Your task to perform on an android device: Go to Maps Image 0: 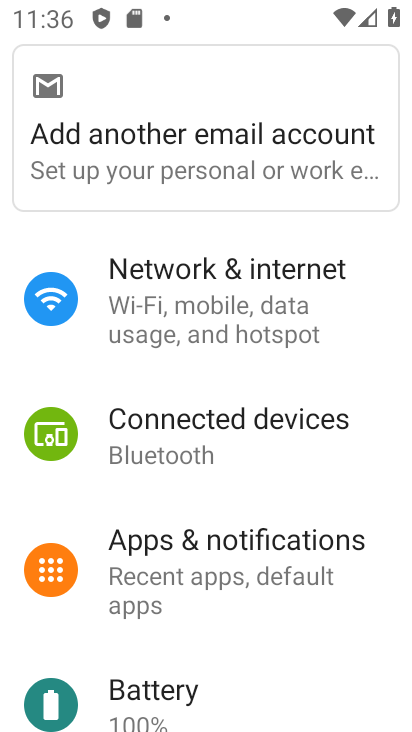
Step 0: press back button
Your task to perform on an android device: Go to Maps Image 1: 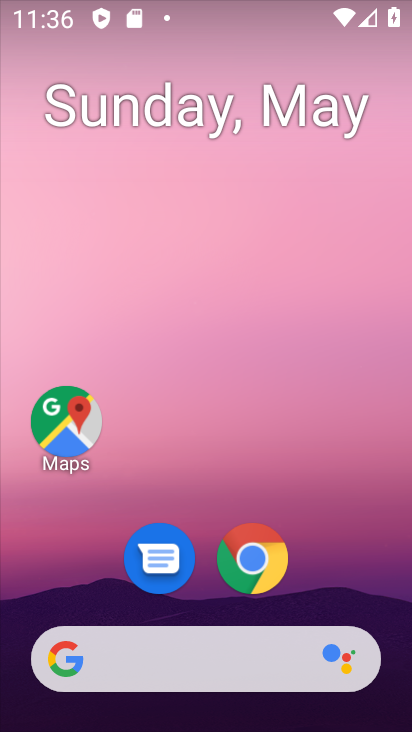
Step 1: drag from (357, 579) to (347, 98)
Your task to perform on an android device: Go to Maps Image 2: 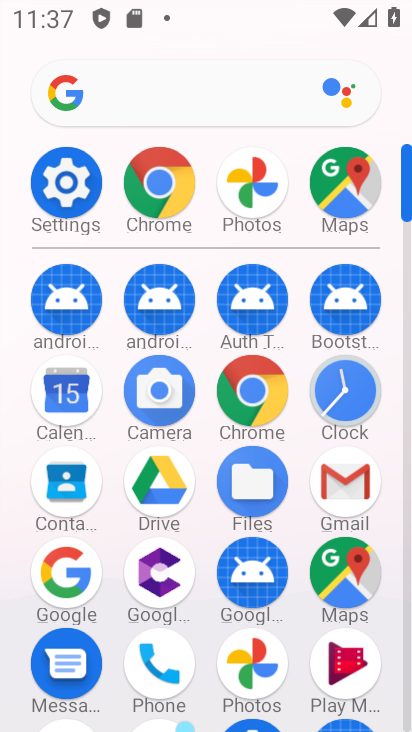
Step 2: click (344, 182)
Your task to perform on an android device: Go to Maps Image 3: 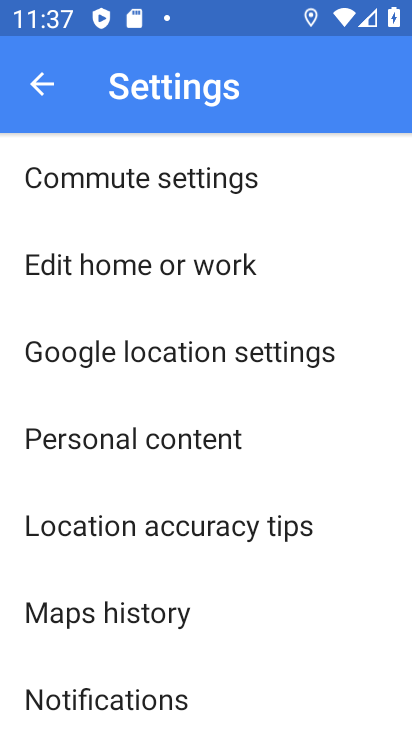
Step 3: click (38, 95)
Your task to perform on an android device: Go to Maps Image 4: 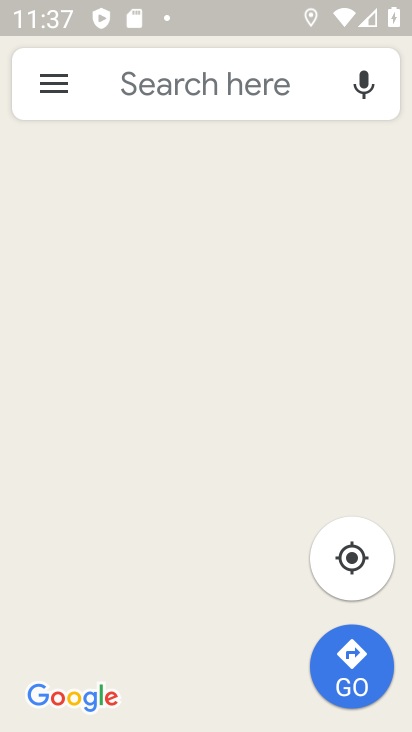
Step 4: task complete